Your task to perform on an android device: Search for "razer kraken" on newegg.com, select the first entry, and add it to the cart. Image 0: 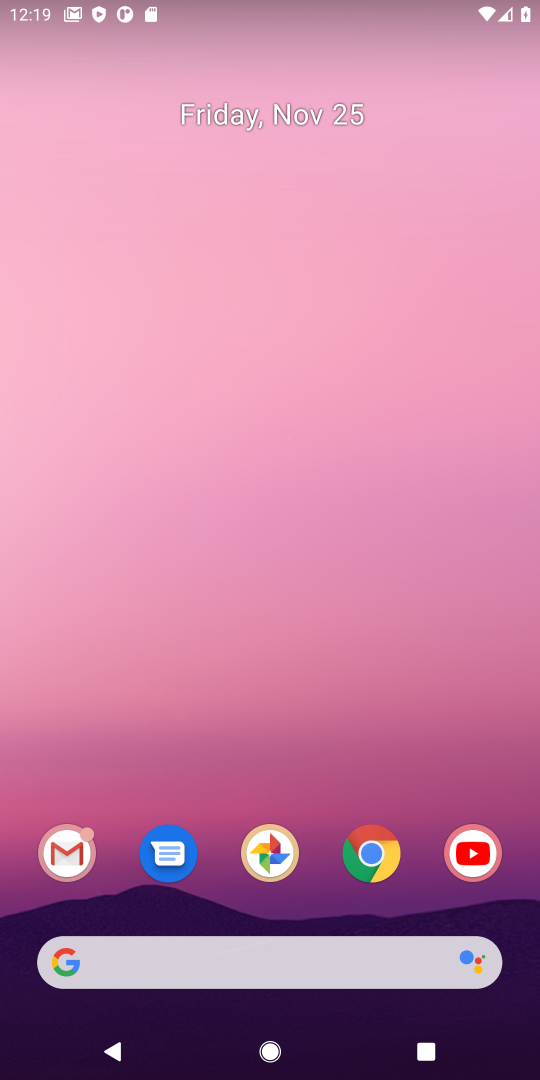
Step 0: click (169, 939)
Your task to perform on an android device: Search for "razer kraken" on newegg.com, select the first entry, and add it to the cart. Image 1: 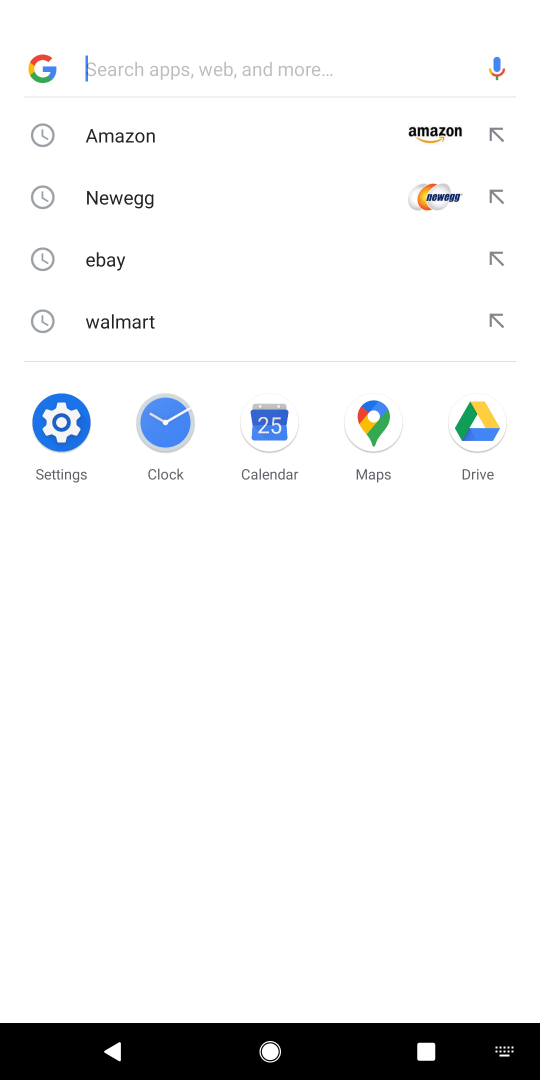
Step 1: type "newegg"
Your task to perform on an android device: Search for "razer kraken" on newegg.com, select the first entry, and add it to the cart. Image 2: 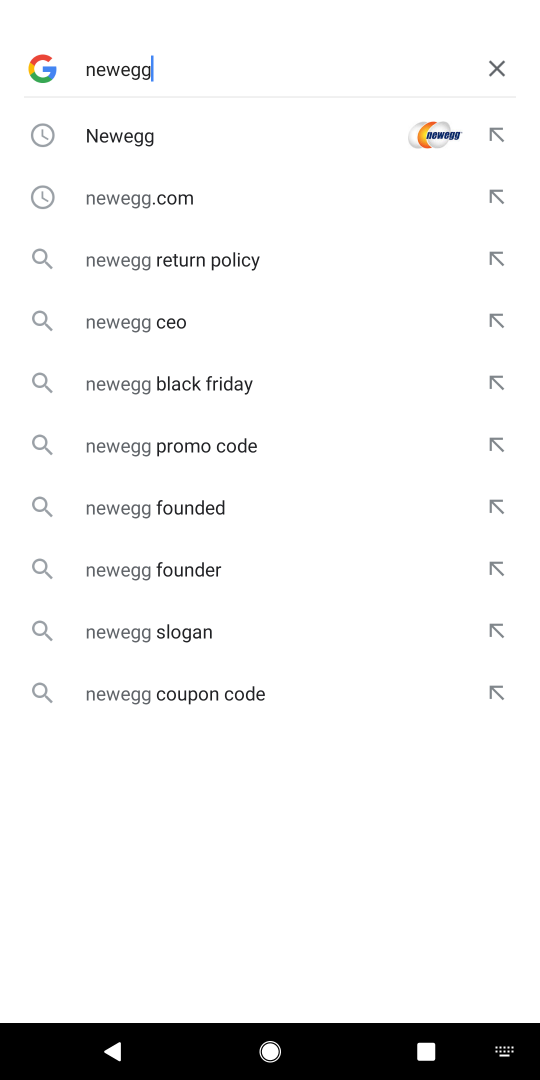
Step 2: click (218, 141)
Your task to perform on an android device: Search for "razer kraken" on newegg.com, select the first entry, and add it to the cart. Image 3: 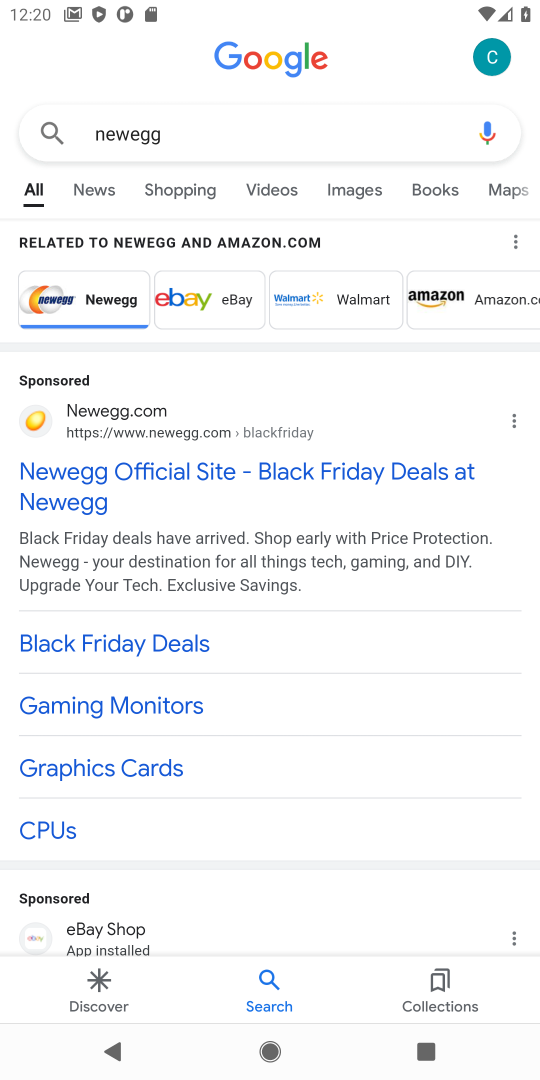
Step 3: click (209, 473)
Your task to perform on an android device: Search for "razer kraken" on newegg.com, select the first entry, and add it to the cart. Image 4: 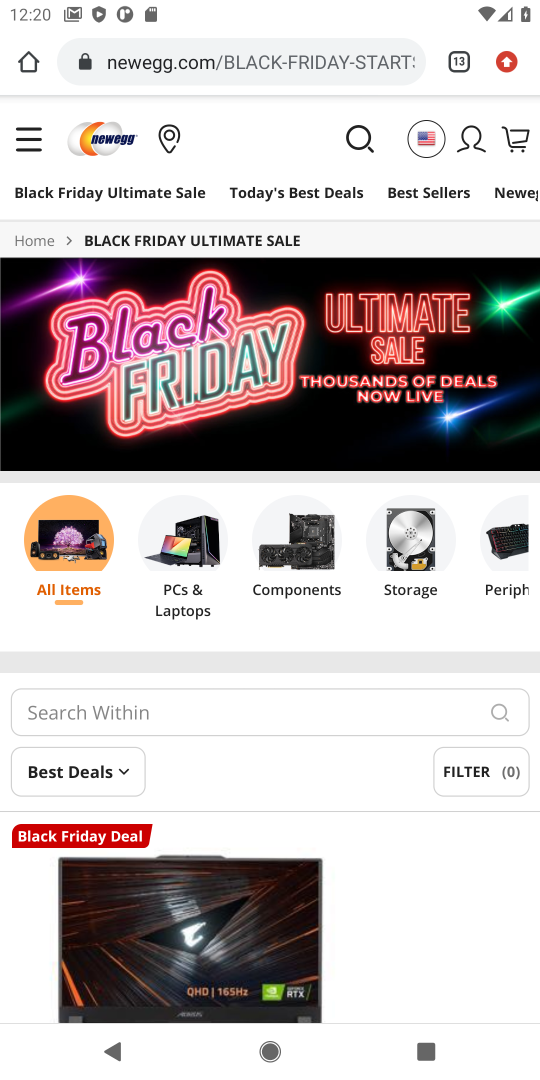
Step 4: drag from (158, 790) to (148, 494)
Your task to perform on an android device: Search for "razer kraken" on newegg.com, select the first entry, and add it to the cart. Image 5: 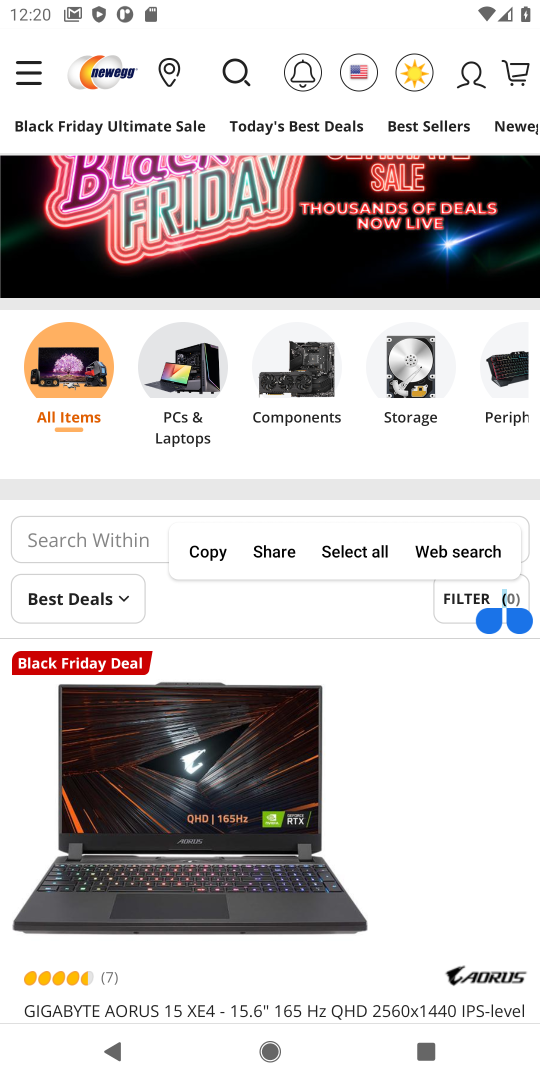
Step 5: click (242, 87)
Your task to perform on an android device: Search for "razer kraken" on newegg.com, select the first entry, and add it to the cart. Image 6: 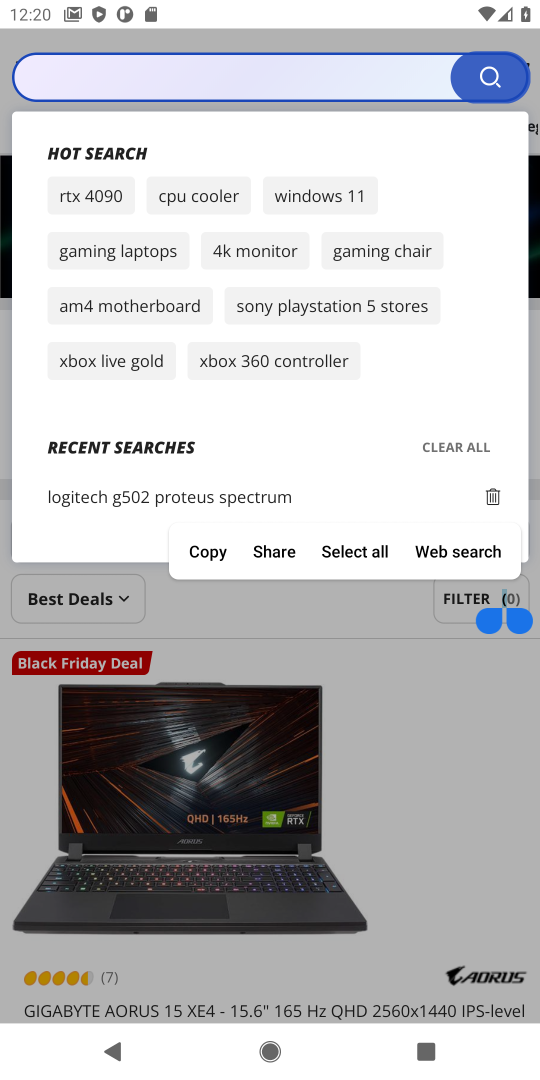
Step 6: type "razen karken"
Your task to perform on an android device: Search for "razer kraken" on newegg.com, select the first entry, and add it to the cart. Image 7: 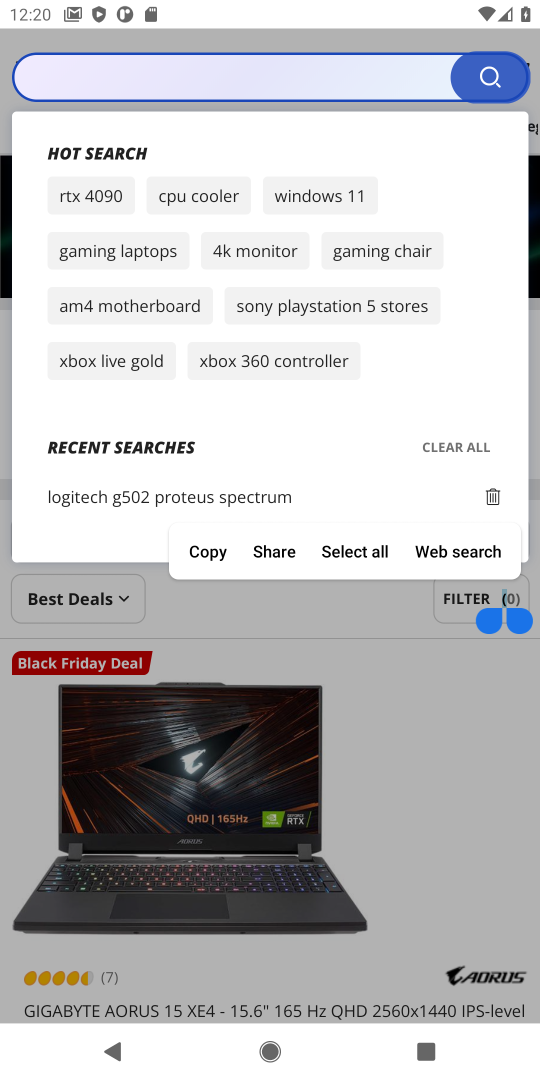
Step 7: click (362, 73)
Your task to perform on an android device: Search for "razer kraken" on newegg.com, select the first entry, and add it to the cart. Image 8: 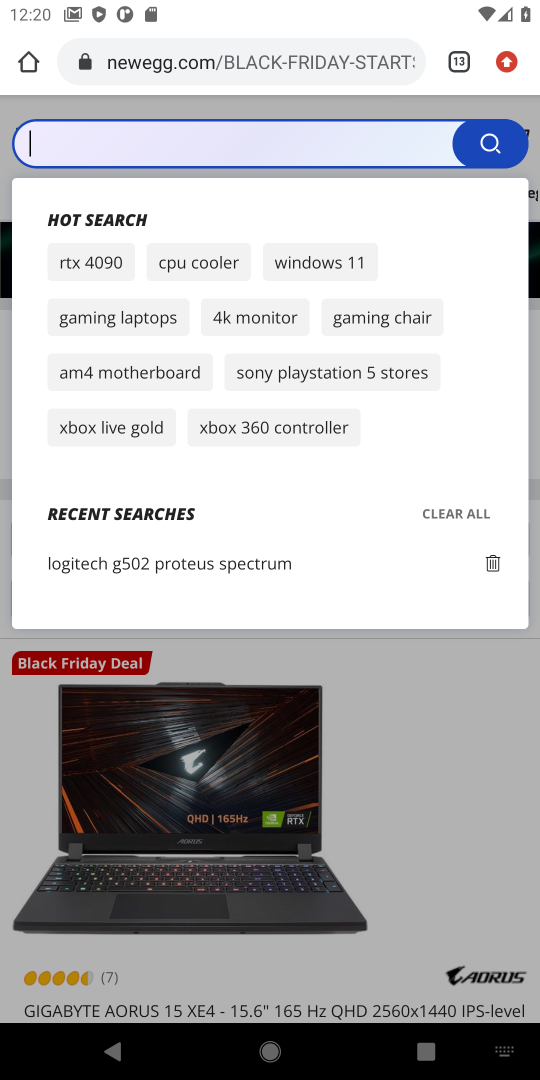
Step 8: type "razer karken"
Your task to perform on an android device: Search for "razer kraken" on newegg.com, select the first entry, and add it to the cart. Image 9: 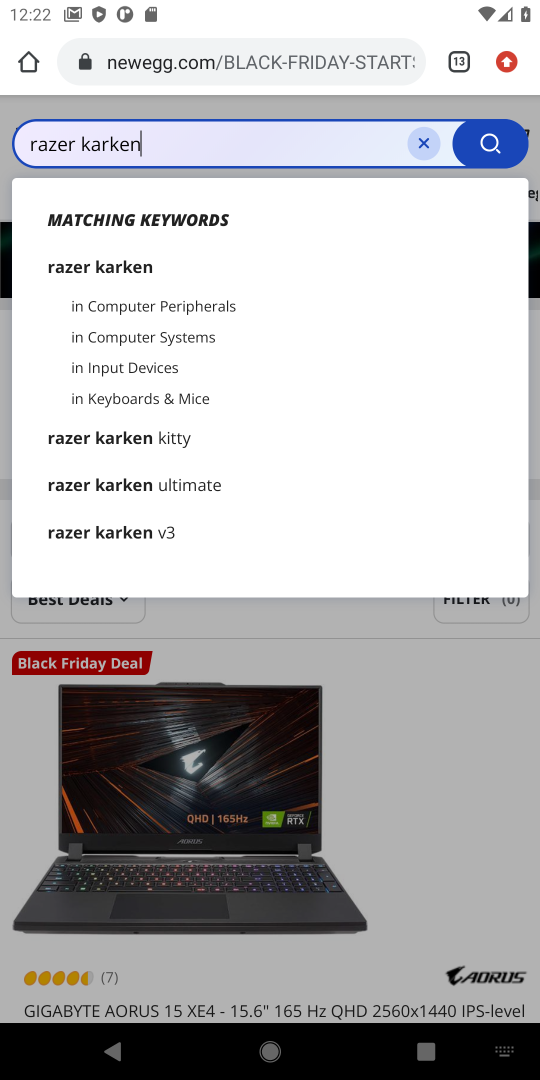
Step 9: click (132, 273)
Your task to perform on an android device: Search for "razer kraken" on newegg.com, select the first entry, and add it to the cart. Image 10: 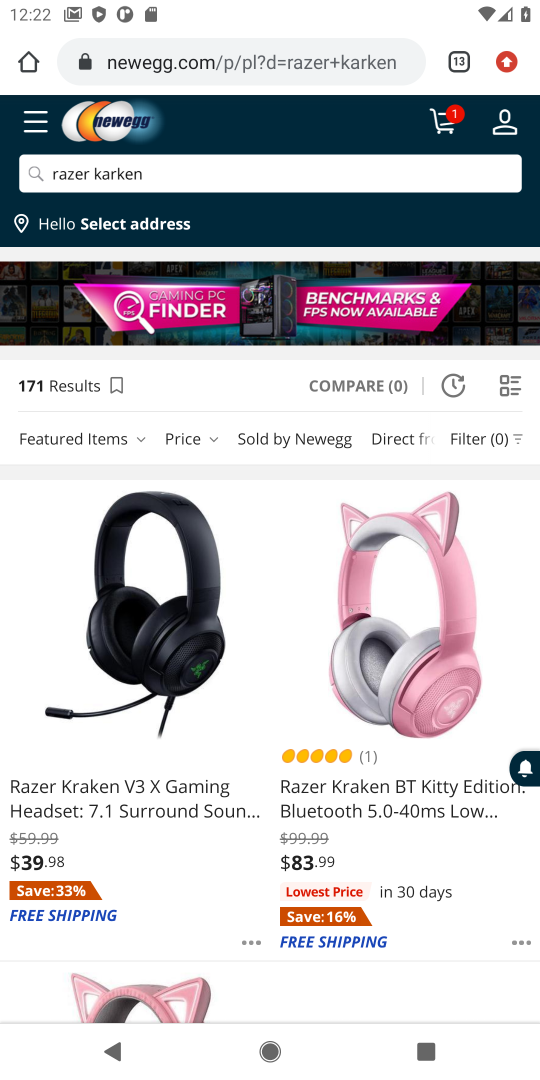
Step 10: click (189, 642)
Your task to perform on an android device: Search for "razer kraken" on newegg.com, select the first entry, and add it to the cart. Image 11: 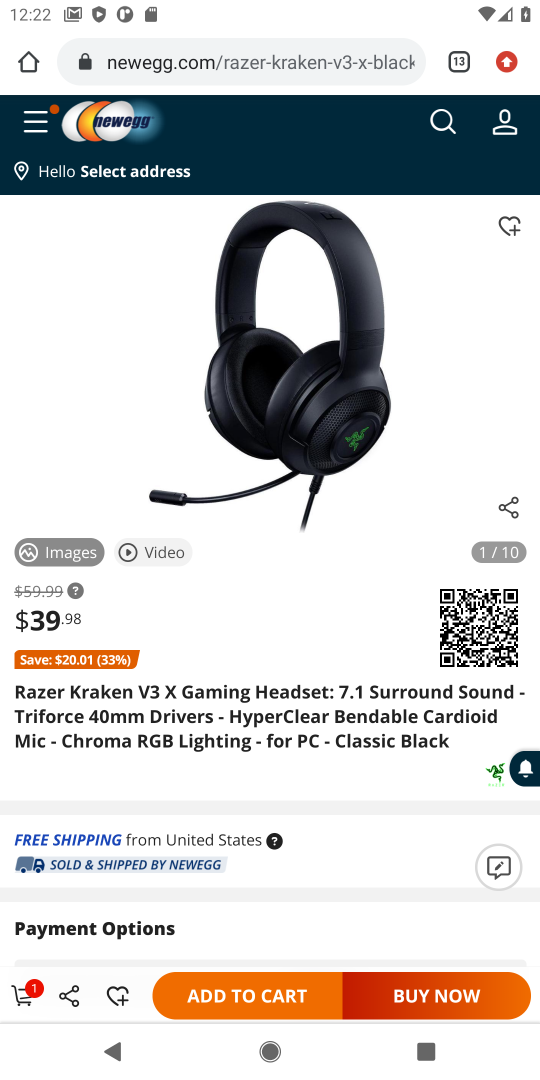
Step 11: click (271, 996)
Your task to perform on an android device: Search for "razer kraken" on newegg.com, select the first entry, and add it to the cart. Image 12: 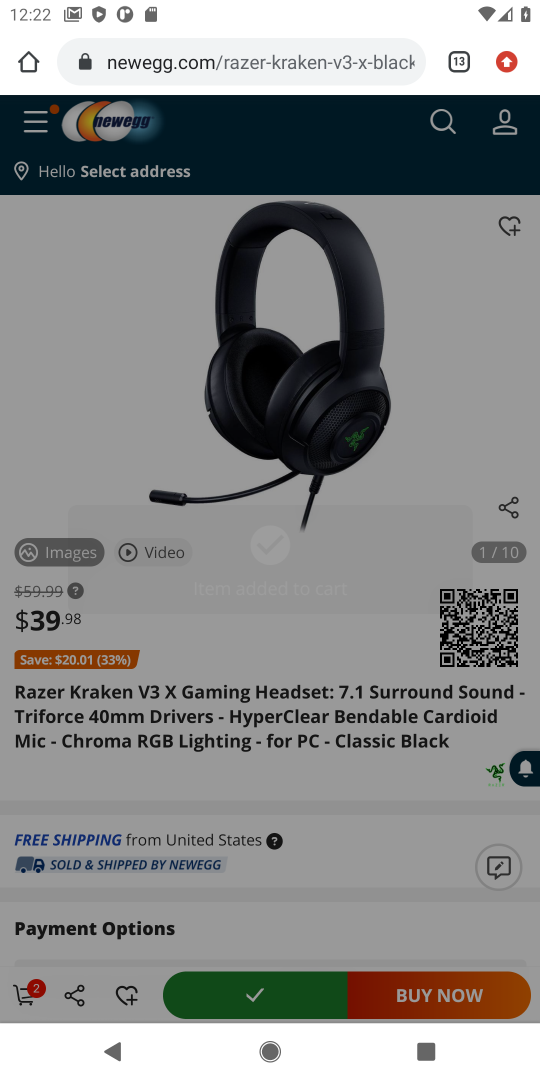
Step 12: task complete